Your task to perform on an android device: Open sound settings Image 0: 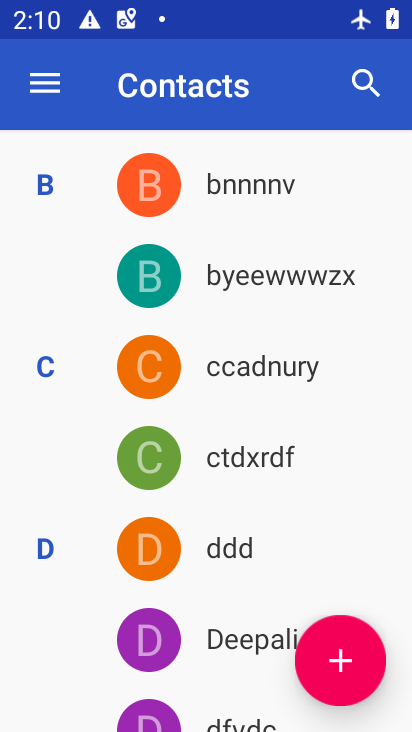
Step 0: press home button
Your task to perform on an android device: Open sound settings Image 1: 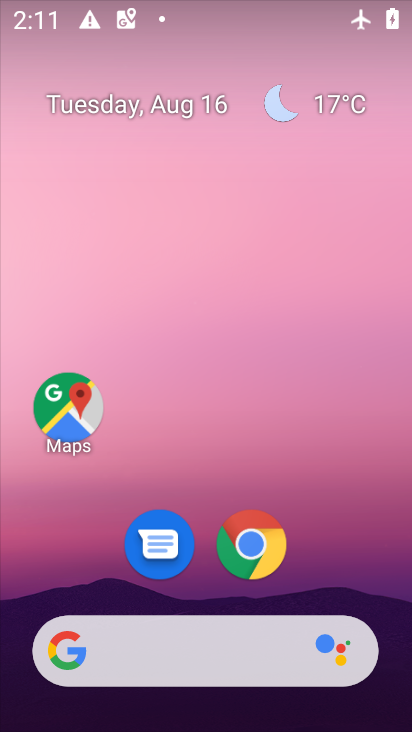
Step 1: drag from (199, 656) to (241, 157)
Your task to perform on an android device: Open sound settings Image 2: 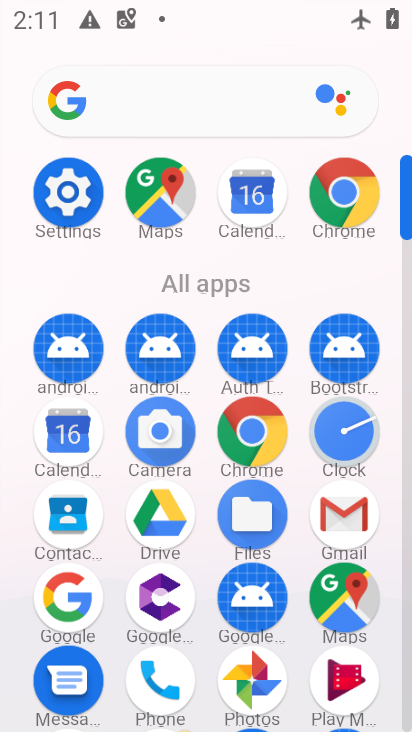
Step 2: click (64, 191)
Your task to perform on an android device: Open sound settings Image 3: 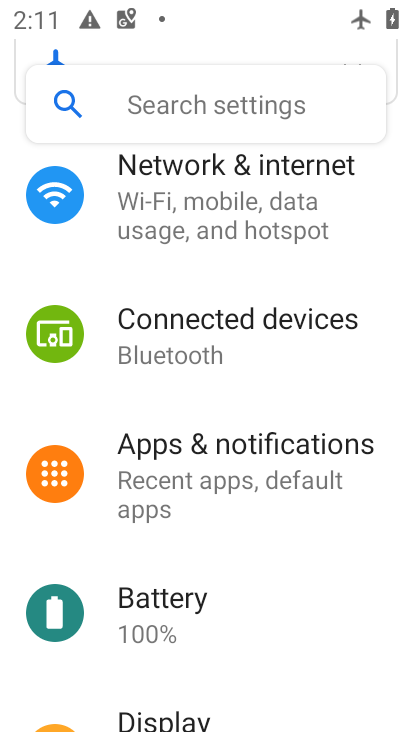
Step 3: drag from (115, 411) to (198, 289)
Your task to perform on an android device: Open sound settings Image 4: 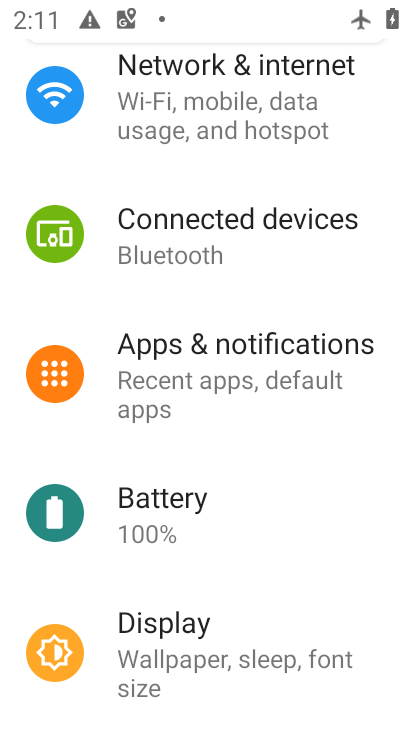
Step 4: drag from (158, 530) to (253, 407)
Your task to perform on an android device: Open sound settings Image 5: 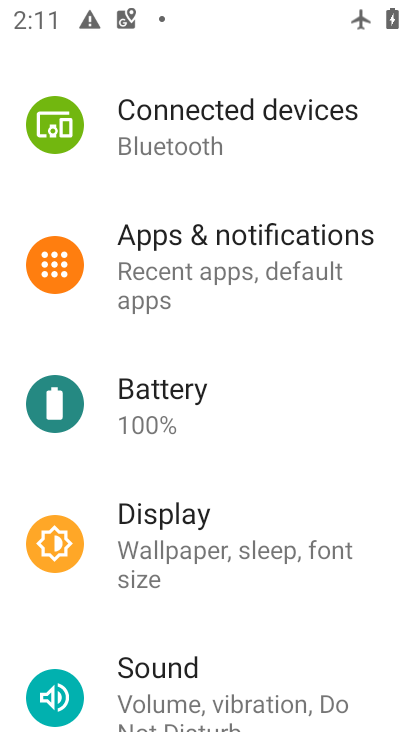
Step 5: drag from (179, 570) to (253, 431)
Your task to perform on an android device: Open sound settings Image 6: 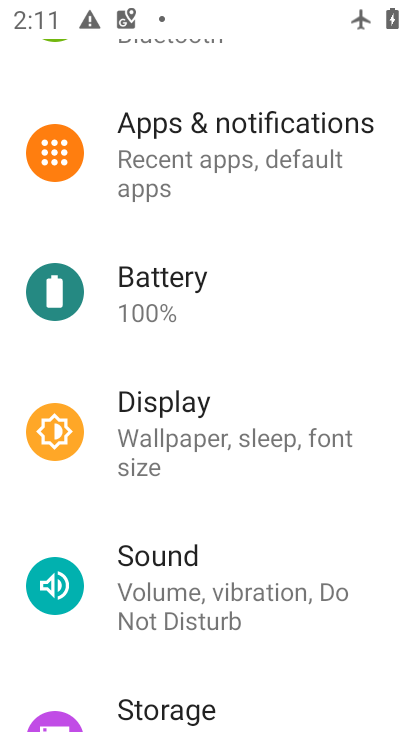
Step 6: click (174, 562)
Your task to perform on an android device: Open sound settings Image 7: 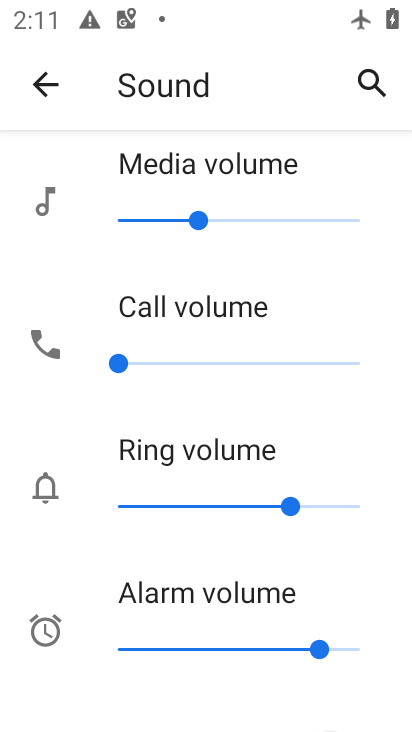
Step 7: task complete